Your task to perform on an android device: turn off notifications settings in the gmail app Image 0: 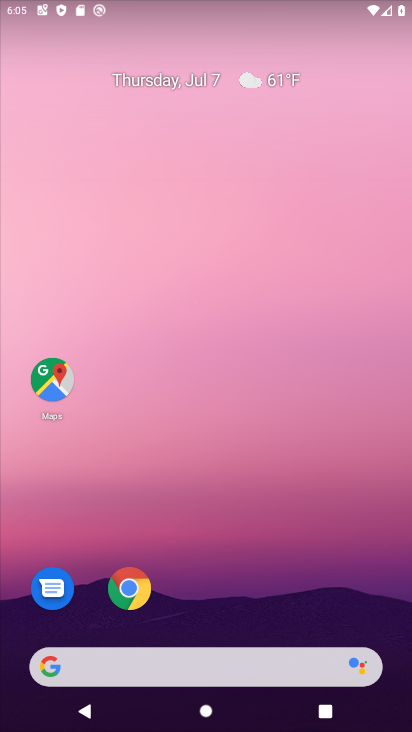
Step 0: drag from (216, 552) to (305, 19)
Your task to perform on an android device: turn off notifications settings in the gmail app Image 1: 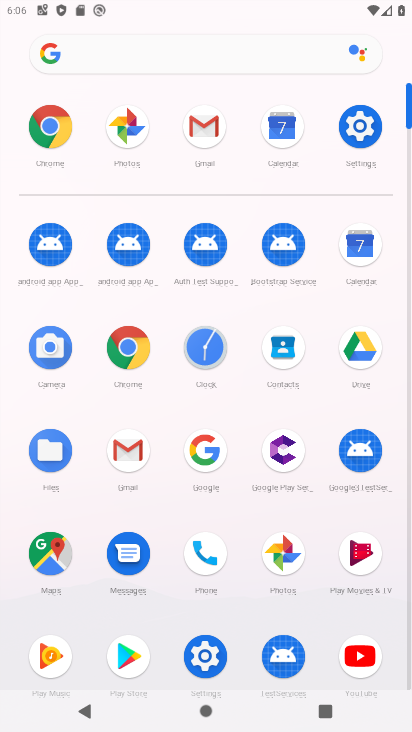
Step 1: click (213, 134)
Your task to perform on an android device: turn off notifications settings in the gmail app Image 2: 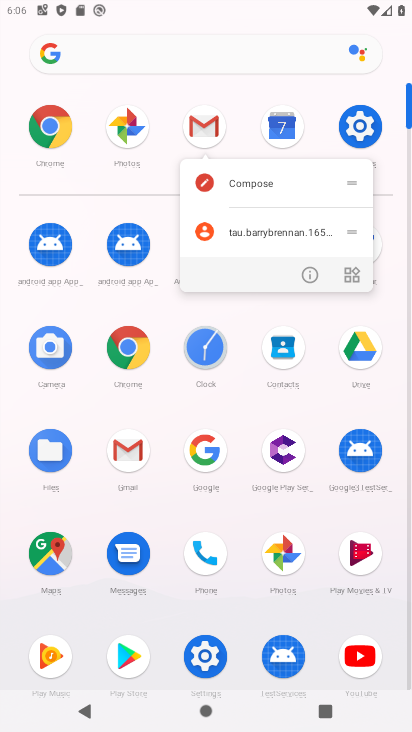
Step 2: click (318, 269)
Your task to perform on an android device: turn off notifications settings in the gmail app Image 3: 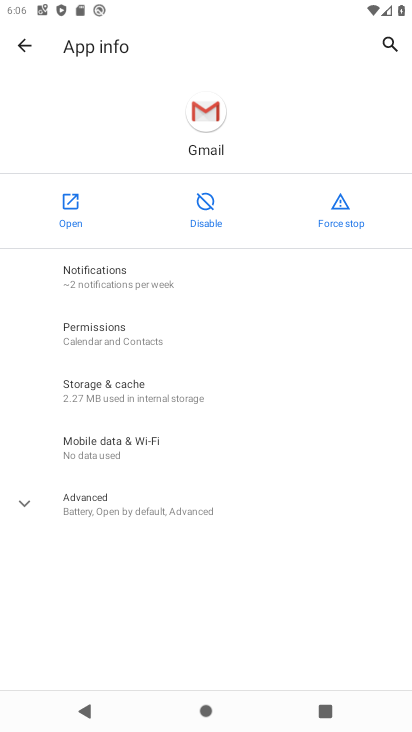
Step 3: click (117, 274)
Your task to perform on an android device: turn off notifications settings in the gmail app Image 4: 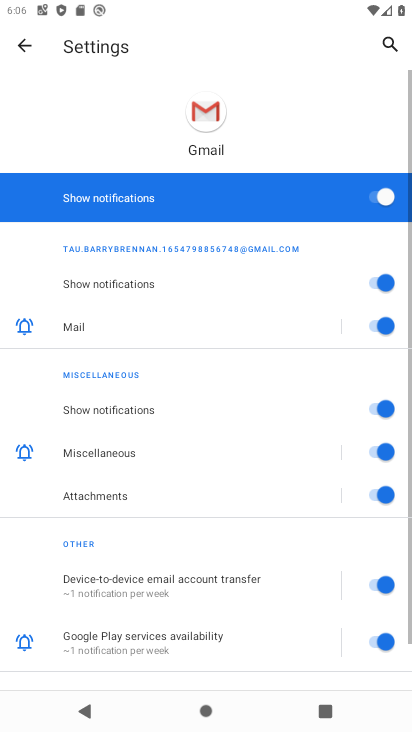
Step 4: click (380, 194)
Your task to perform on an android device: turn off notifications settings in the gmail app Image 5: 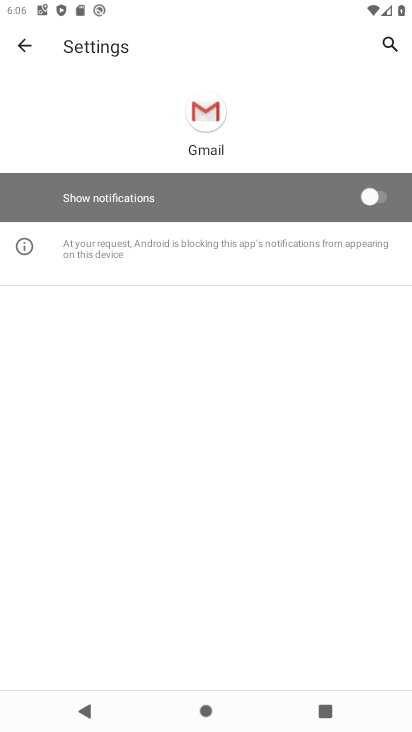
Step 5: task complete